Your task to perform on an android device: change notification settings in the gmail app Image 0: 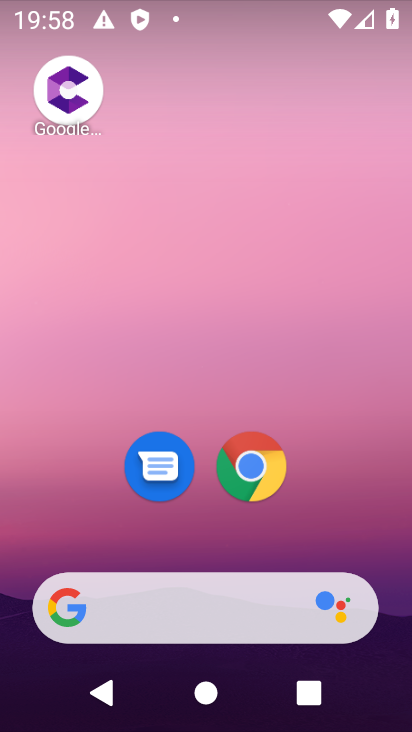
Step 0: drag from (325, 534) to (288, 121)
Your task to perform on an android device: change notification settings in the gmail app Image 1: 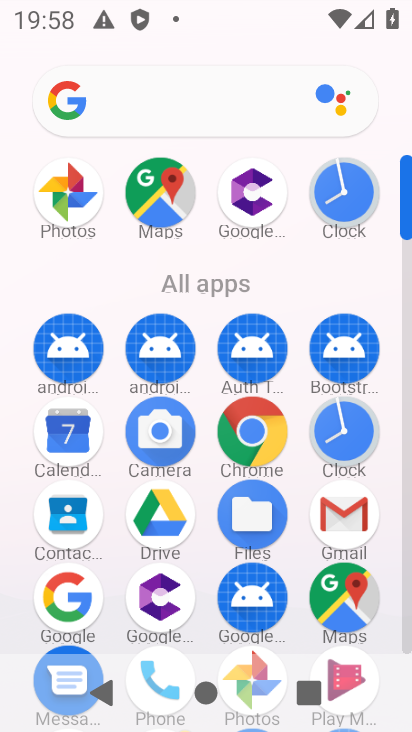
Step 1: click (357, 507)
Your task to perform on an android device: change notification settings in the gmail app Image 2: 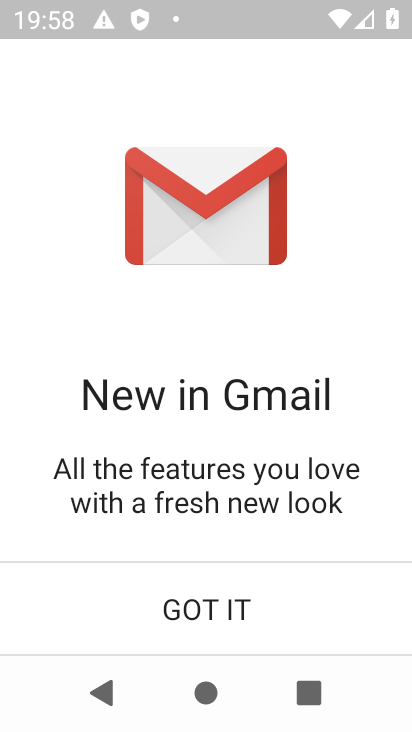
Step 2: click (229, 645)
Your task to perform on an android device: change notification settings in the gmail app Image 3: 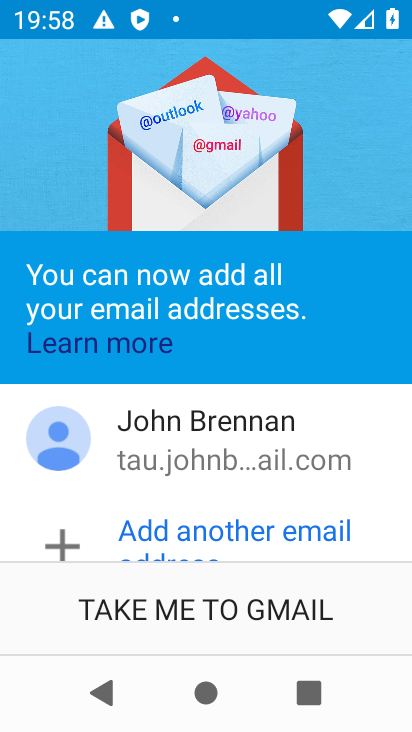
Step 3: click (213, 617)
Your task to perform on an android device: change notification settings in the gmail app Image 4: 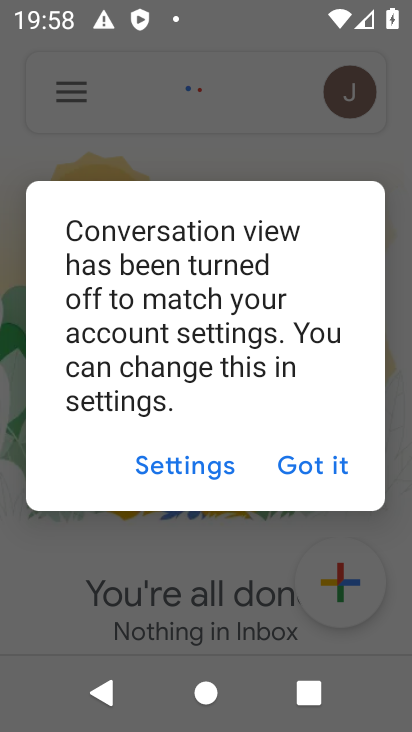
Step 4: click (320, 466)
Your task to perform on an android device: change notification settings in the gmail app Image 5: 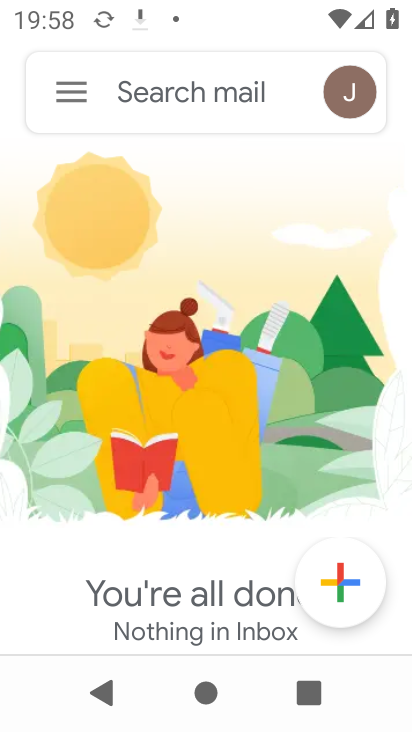
Step 5: click (66, 79)
Your task to perform on an android device: change notification settings in the gmail app Image 6: 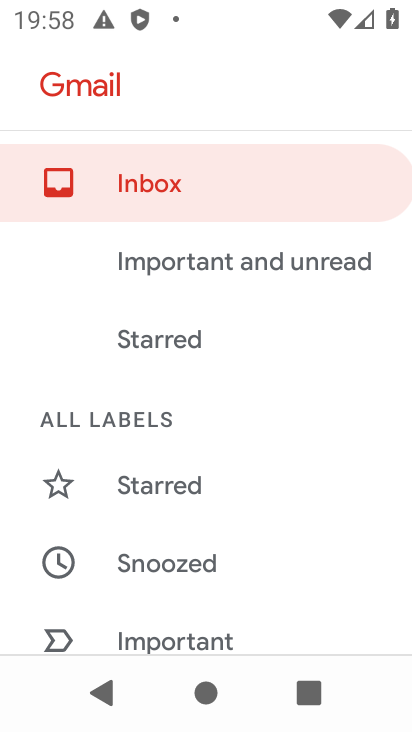
Step 6: drag from (174, 476) to (147, 134)
Your task to perform on an android device: change notification settings in the gmail app Image 7: 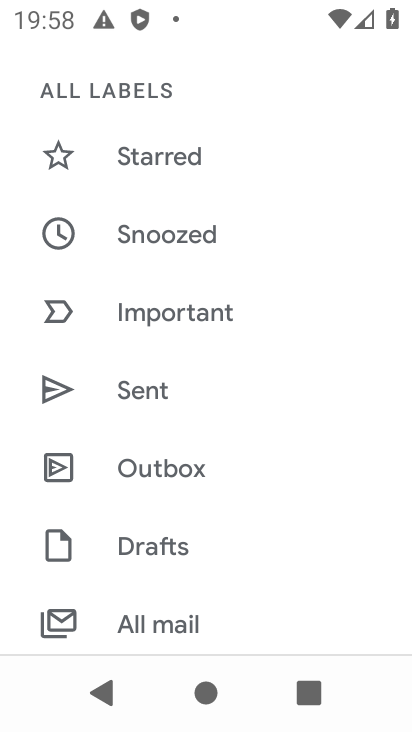
Step 7: drag from (283, 603) to (212, 97)
Your task to perform on an android device: change notification settings in the gmail app Image 8: 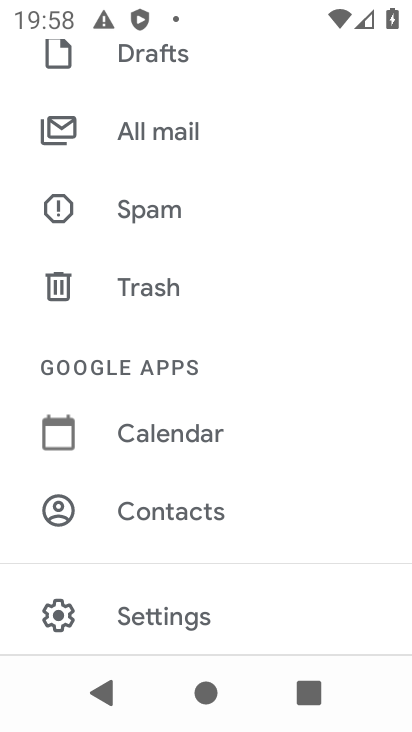
Step 8: click (234, 602)
Your task to perform on an android device: change notification settings in the gmail app Image 9: 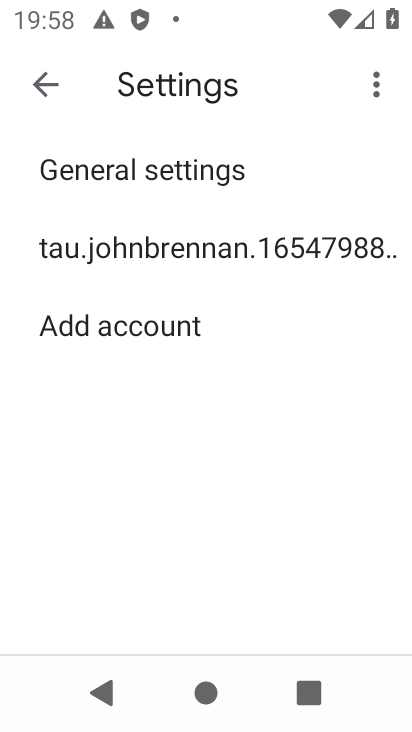
Step 9: click (210, 247)
Your task to perform on an android device: change notification settings in the gmail app Image 10: 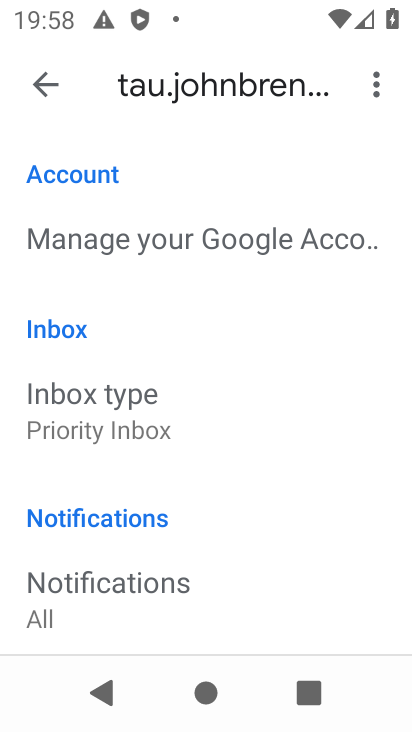
Step 10: drag from (245, 520) to (211, 287)
Your task to perform on an android device: change notification settings in the gmail app Image 11: 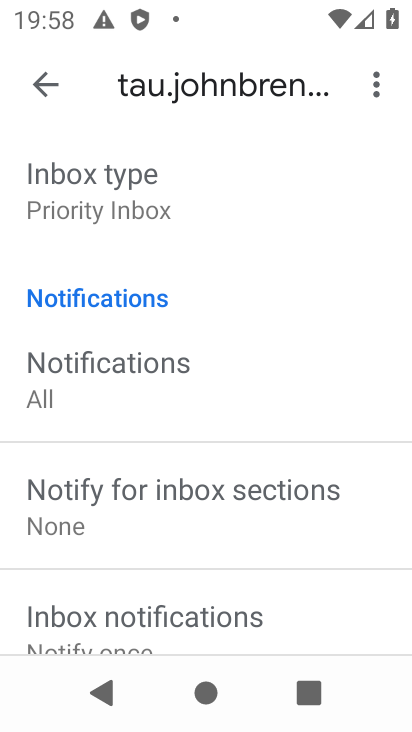
Step 11: drag from (227, 563) to (186, 315)
Your task to perform on an android device: change notification settings in the gmail app Image 12: 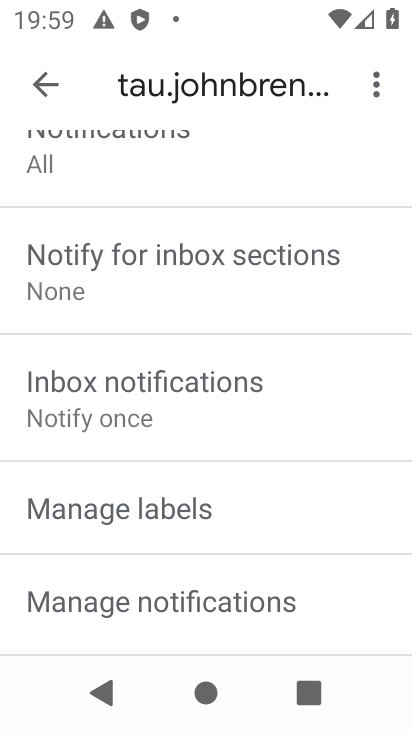
Step 12: click (201, 573)
Your task to perform on an android device: change notification settings in the gmail app Image 13: 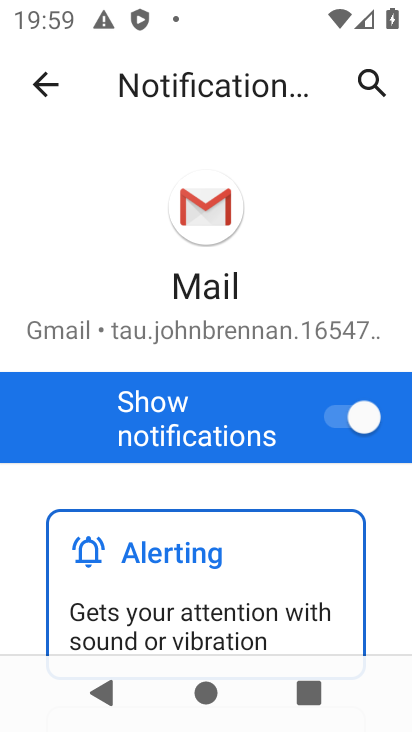
Step 13: click (350, 409)
Your task to perform on an android device: change notification settings in the gmail app Image 14: 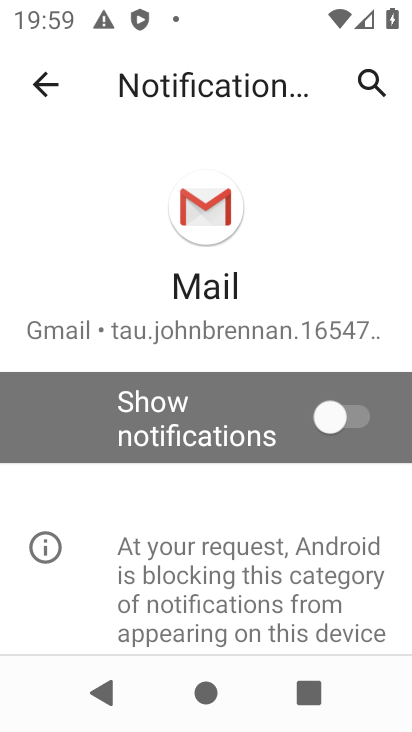
Step 14: task complete